Your task to perform on an android device: check android version Image 0: 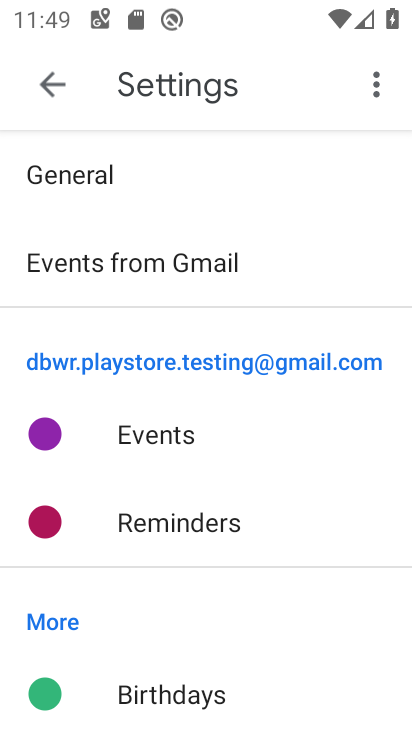
Step 0: press home button
Your task to perform on an android device: check android version Image 1: 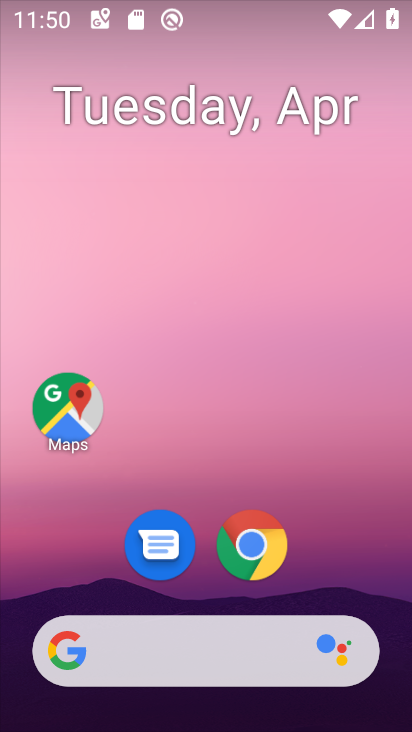
Step 1: drag from (392, 248) to (397, 6)
Your task to perform on an android device: check android version Image 2: 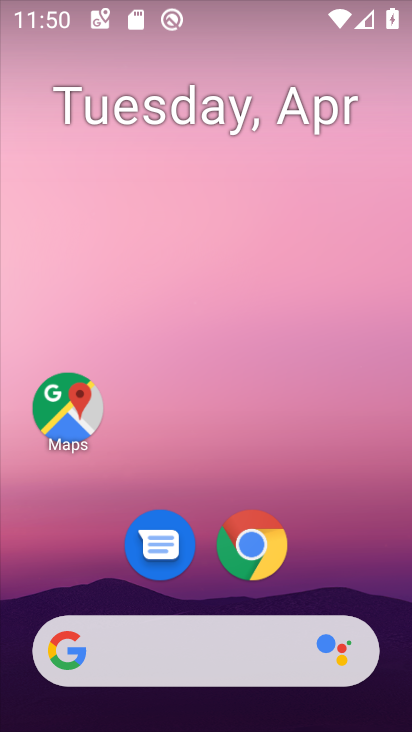
Step 2: drag from (330, 332) to (317, 66)
Your task to perform on an android device: check android version Image 3: 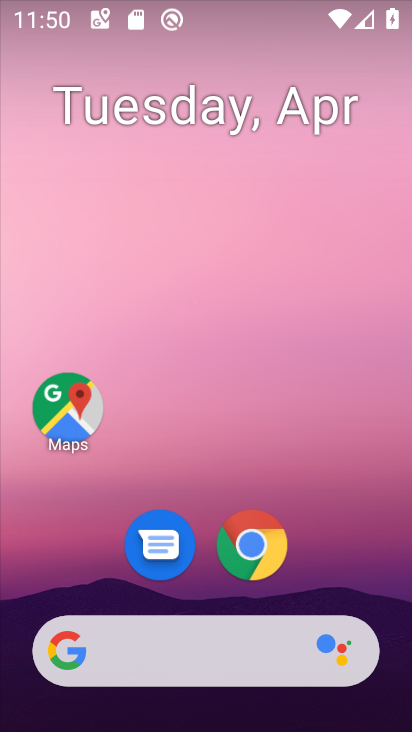
Step 3: drag from (384, 507) to (398, 46)
Your task to perform on an android device: check android version Image 4: 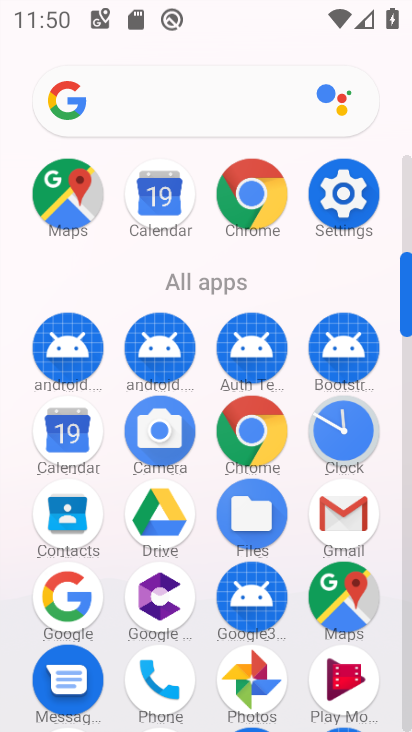
Step 4: click (349, 194)
Your task to perform on an android device: check android version Image 5: 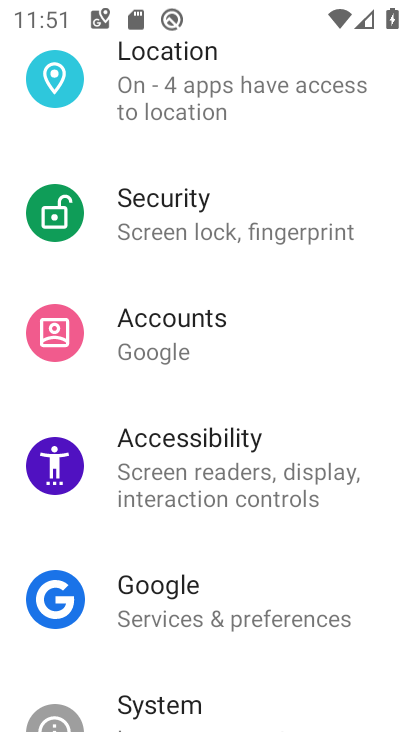
Step 5: drag from (209, 669) to (141, 196)
Your task to perform on an android device: check android version Image 6: 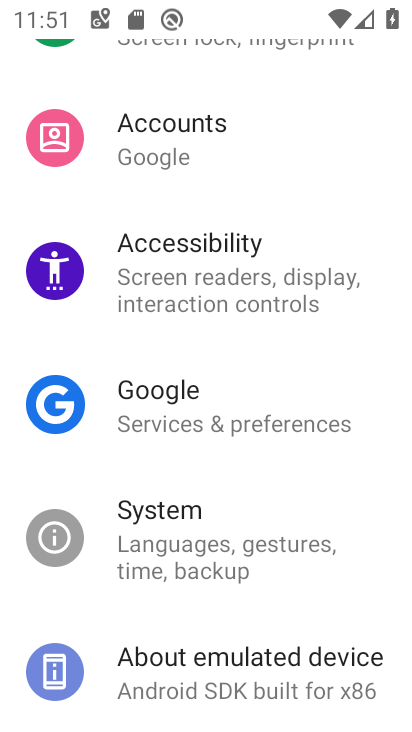
Step 6: click (205, 662)
Your task to perform on an android device: check android version Image 7: 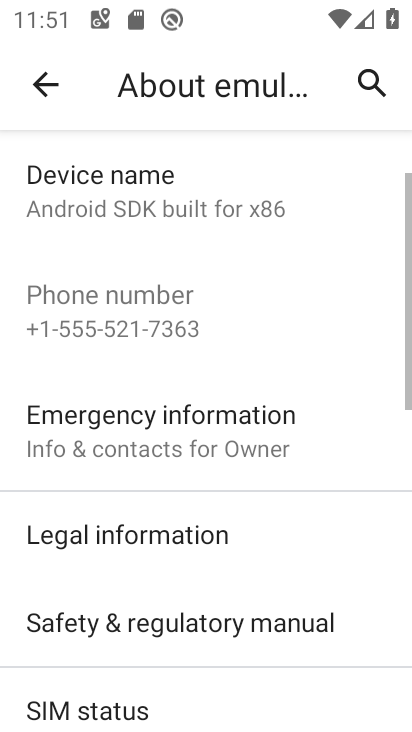
Step 7: drag from (205, 663) to (154, 330)
Your task to perform on an android device: check android version Image 8: 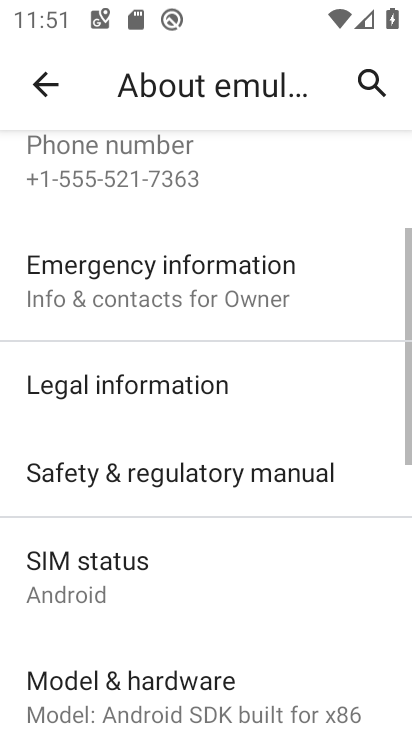
Step 8: drag from (191, 484) to (225, 190)
Your task to perform on an android device: check android version Image 9: 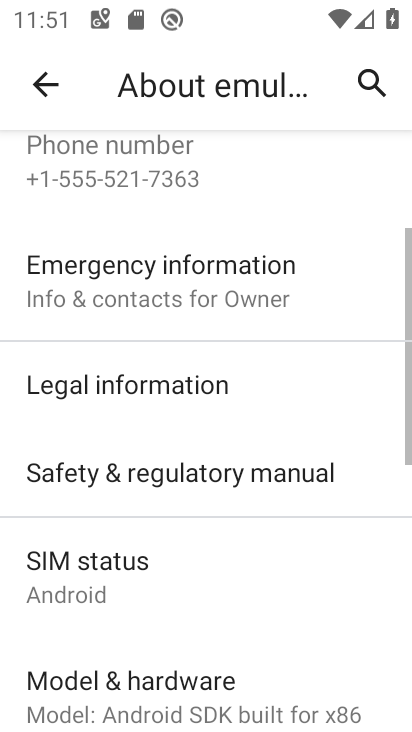
Step 9: drag from (218, 310) to (243, 365)
Your task to perform on an android device: check android version Image 10: 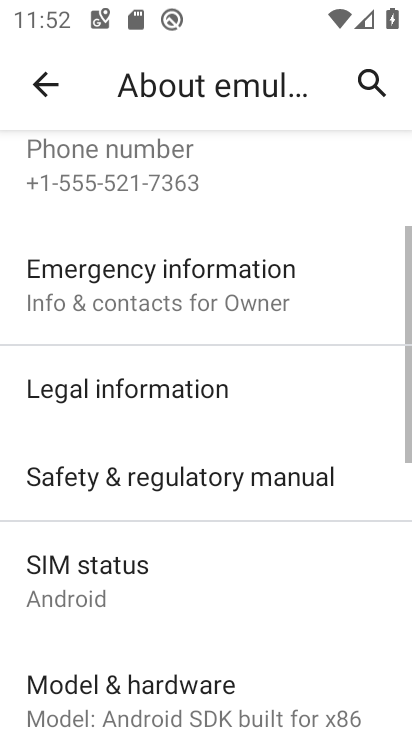
Step 10: drag from (197, 320) to (227, 580)
Your task to perform on an android device: check android version Image 11: 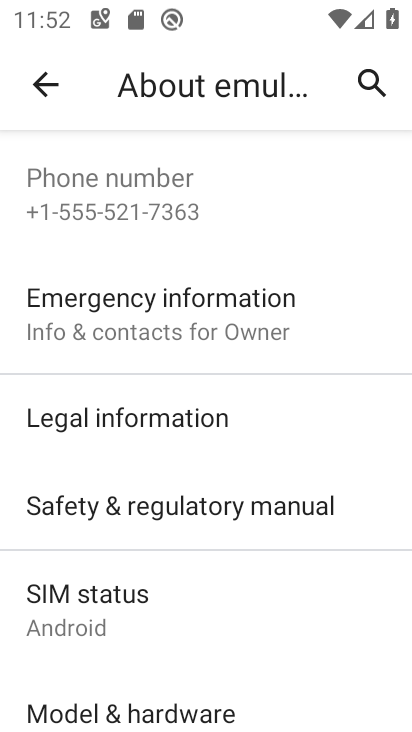
Step 11: drag from (133, 208) to (188, 570)
Your task to perform on an android device: check android version Image 12: 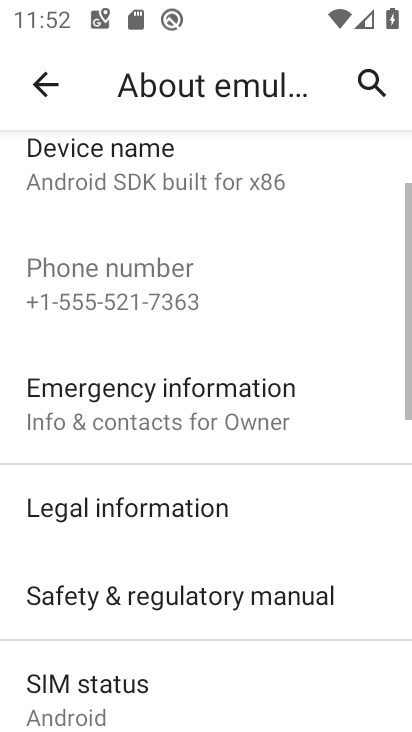
Step 12: drag from (210, 270) to (211, 655)
Your task to perform on an android device: check android version Image 13: 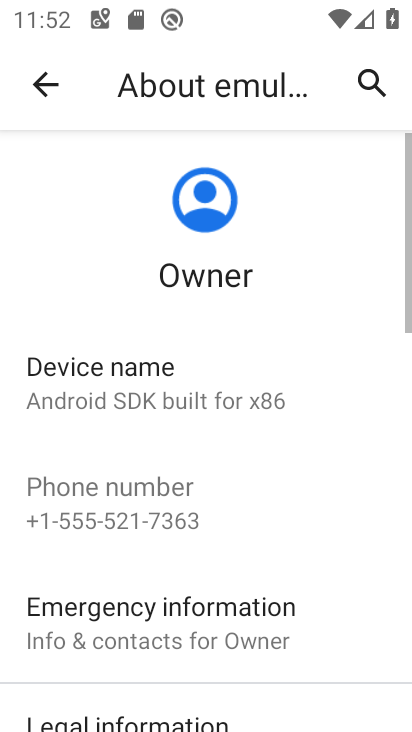
Step 13: drag from (168, 245) to (215, 556)
Your task to perform on an android device: check android version Image 14: 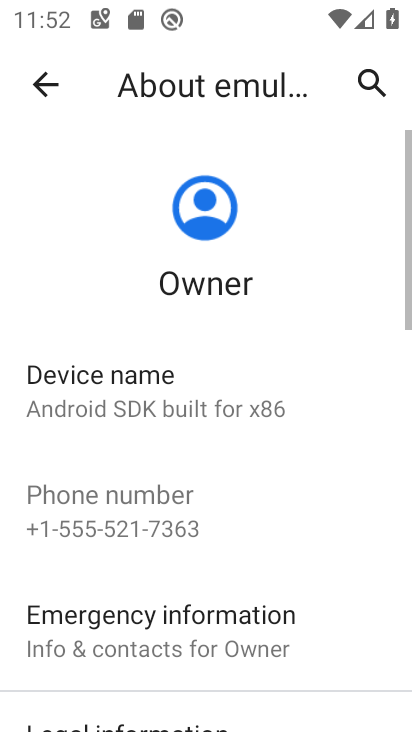
Step 14: drag from (252, 591) to (264, 227)
Your task to perform on an android device: check android version Image 15: 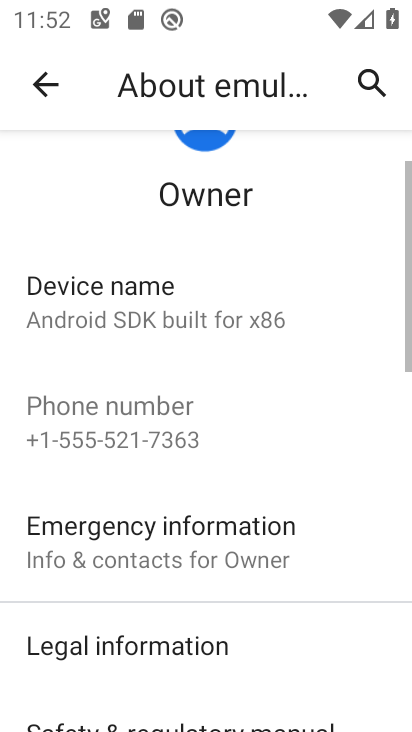
Step 15: drag from (233, 624) to (276, 270)
Your task to perform on an android device: check android version Image 16: 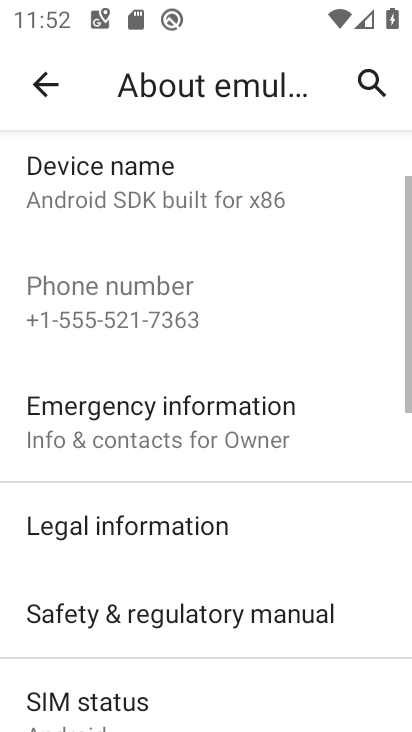
Step 16: drag from (277, 601) to (174, 256)
Your task to perform on an android device: check android version Image 17: 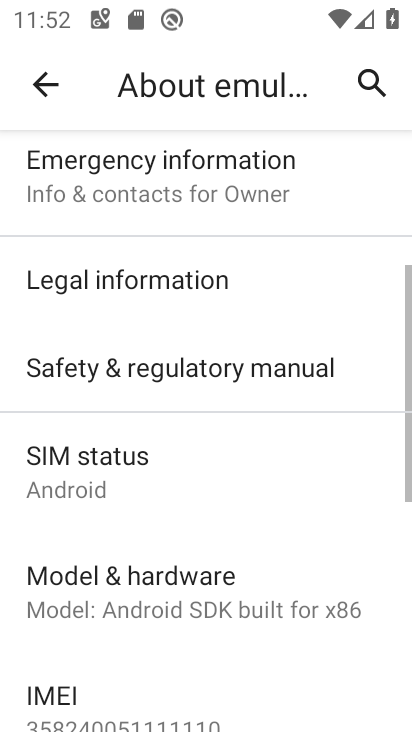
Step 17: drag from (229, 651) to (164, 163)
Your task to perform on an android device: check android version Image 18: 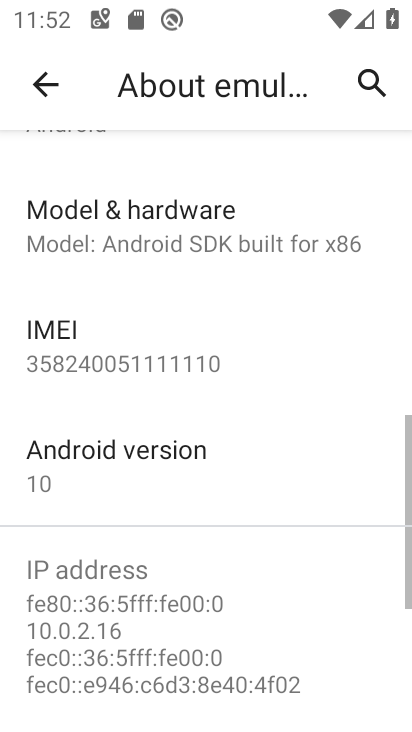
Step 18: click (117, 459)
Your task to perform on an android device: check android version Image 19: 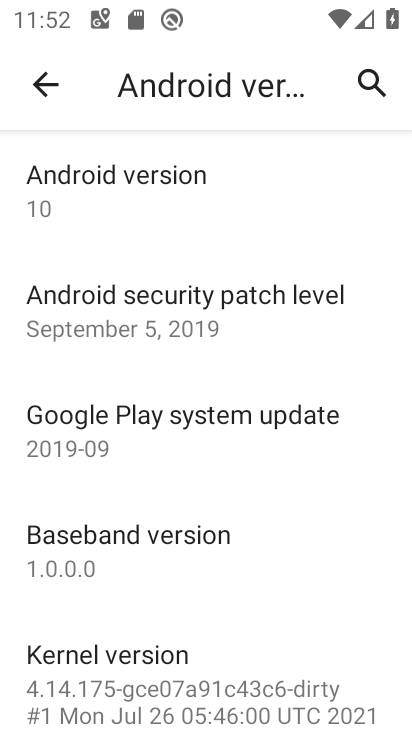
Step 19: task complete